Your task to perform on an android device: turn on javascript in the chrome app Image 0: 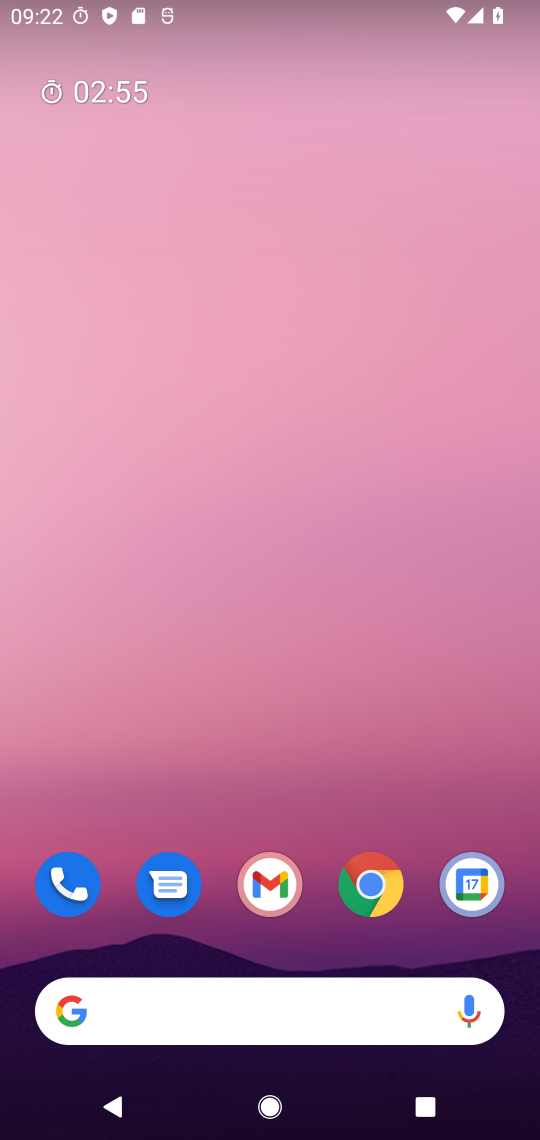
Step 0: click (357, 894)
Your task to perform on an android device: turn on javascript in the chrome app Image 1: 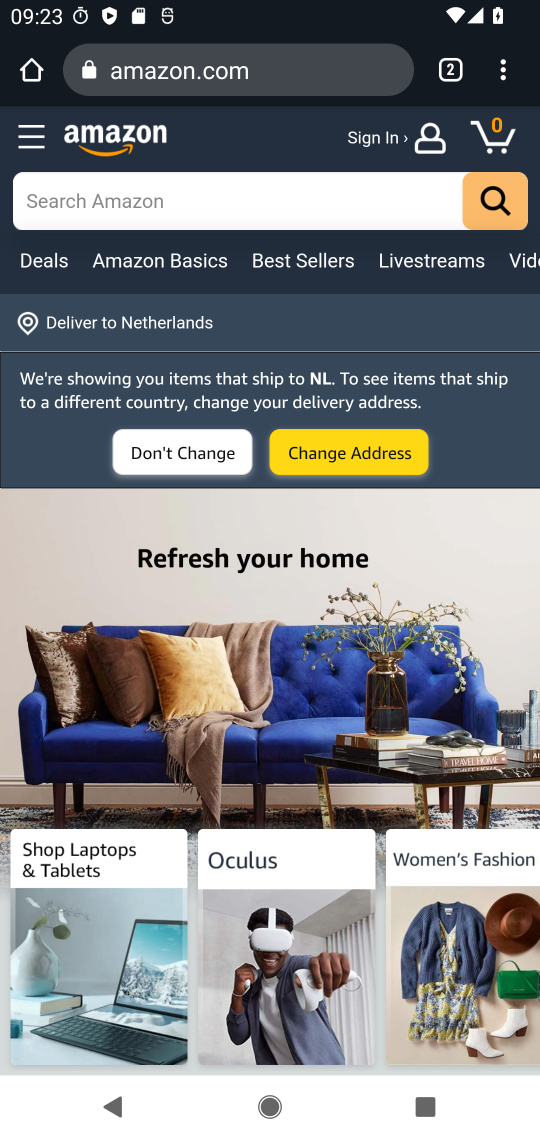
Step 1: click (510, 75)
Your task to perform on an android device: turn on javascript in the chrome app Image 2: 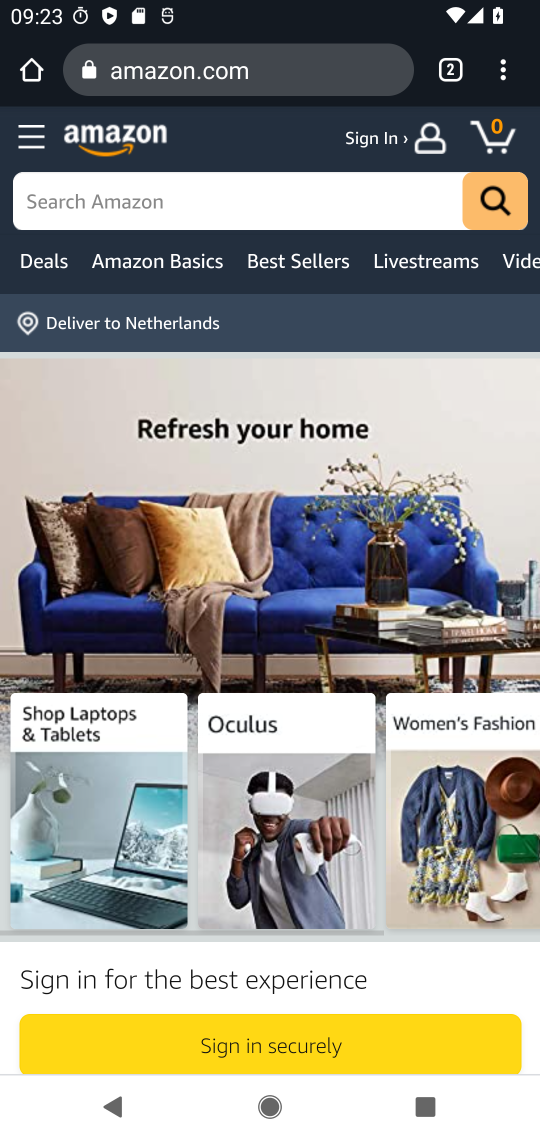
Step 2: click (505, 68)
Your task to perform on an android device: turn on javascript in the chrome app Image 3: 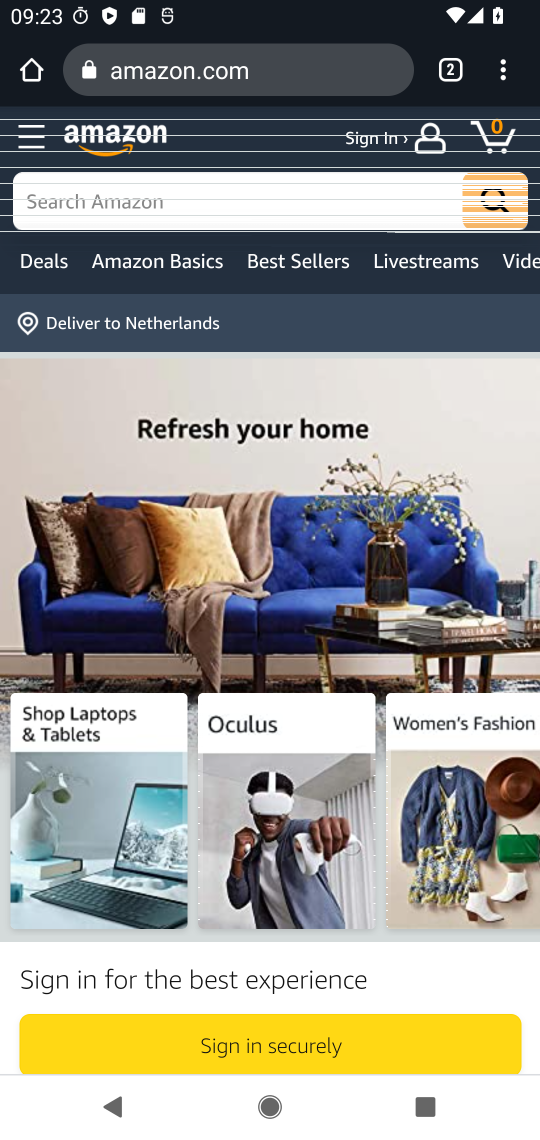
Step 3: drag from (505, 68) to (295, 943)
Your task to perform on an android device: turn on javascript in the chrome app Image 4: 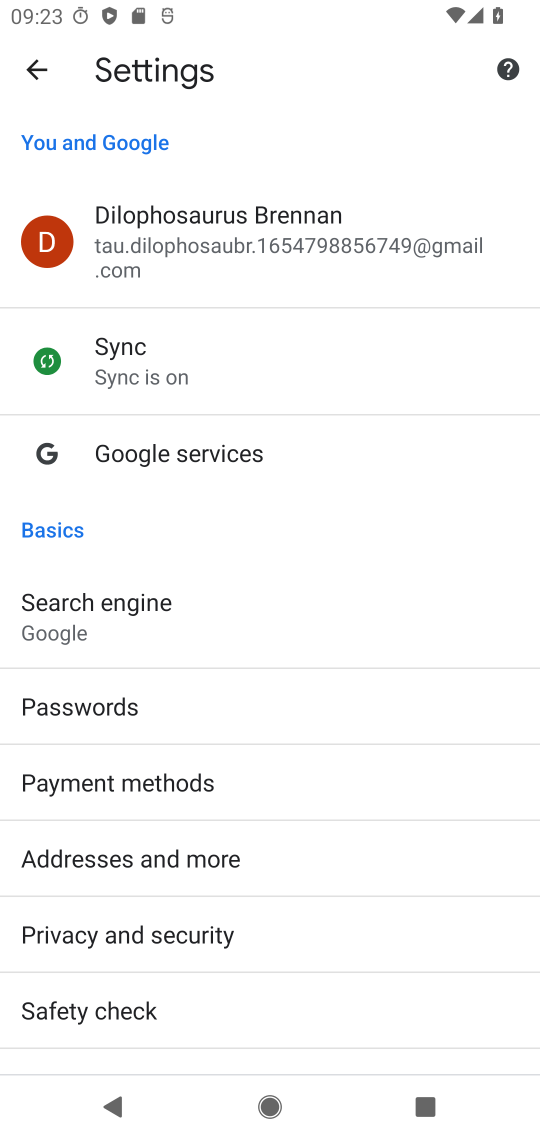
Step 4: drag from (175, 687) to (182, 262)
Your task to perform on an android device: turn on javascript in the chrome app Image 5: 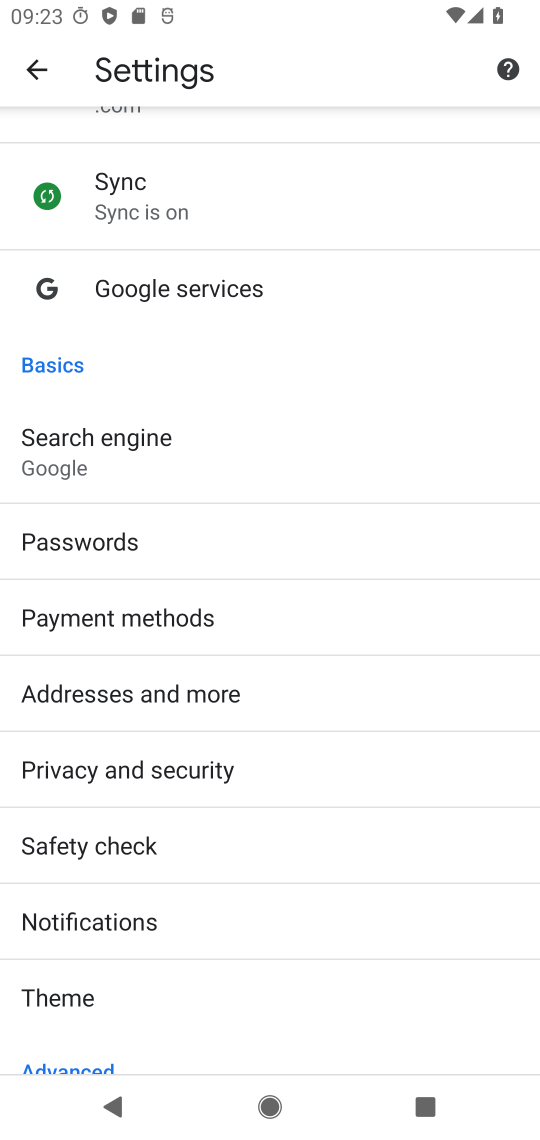
Step 5: drag from (219, 866) to (245, 328)
Your task to perform on an android device: turn on javascript in the chrome app Image 6: 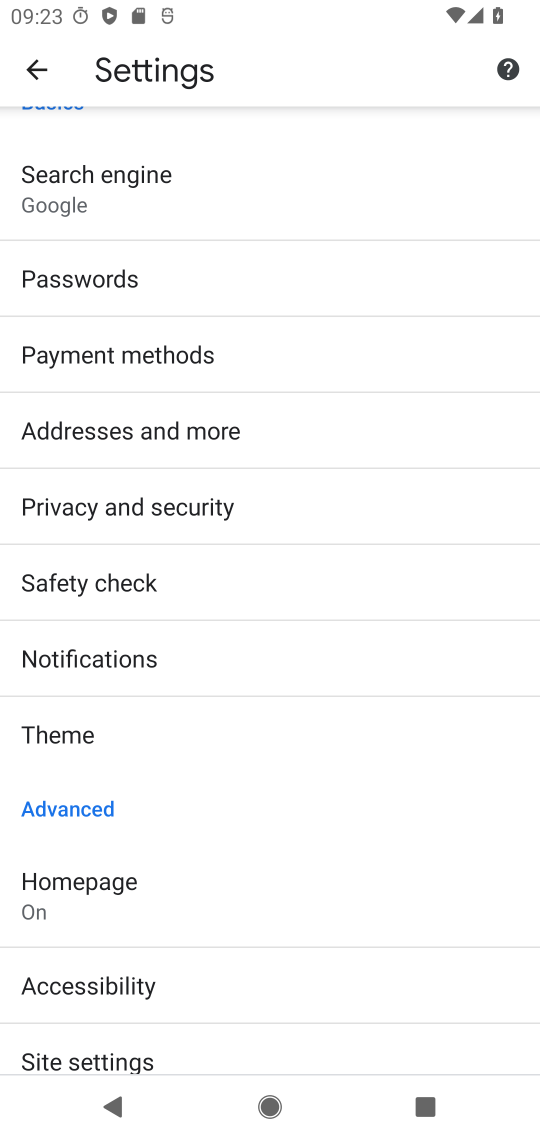
Step 6: drag from (227, 855) to (294, 452)
Your task to perform on an android device: turn on javascript in the chrome app Image 7: 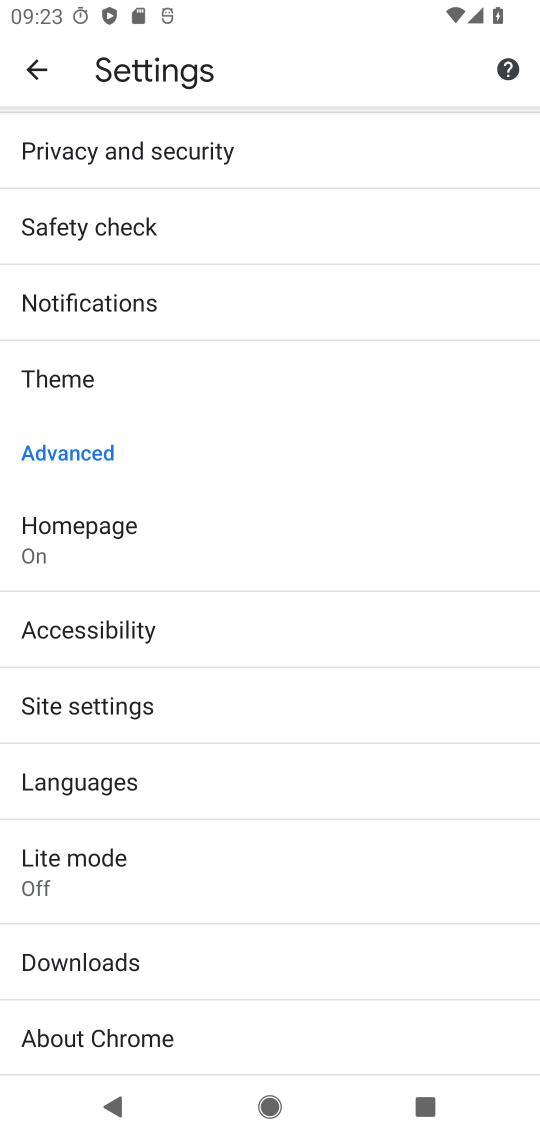
Step 7: drag from (265, 841) to (294, 254)
Your task to perform on an android device: turn on javascript in the chrome app Image 8: 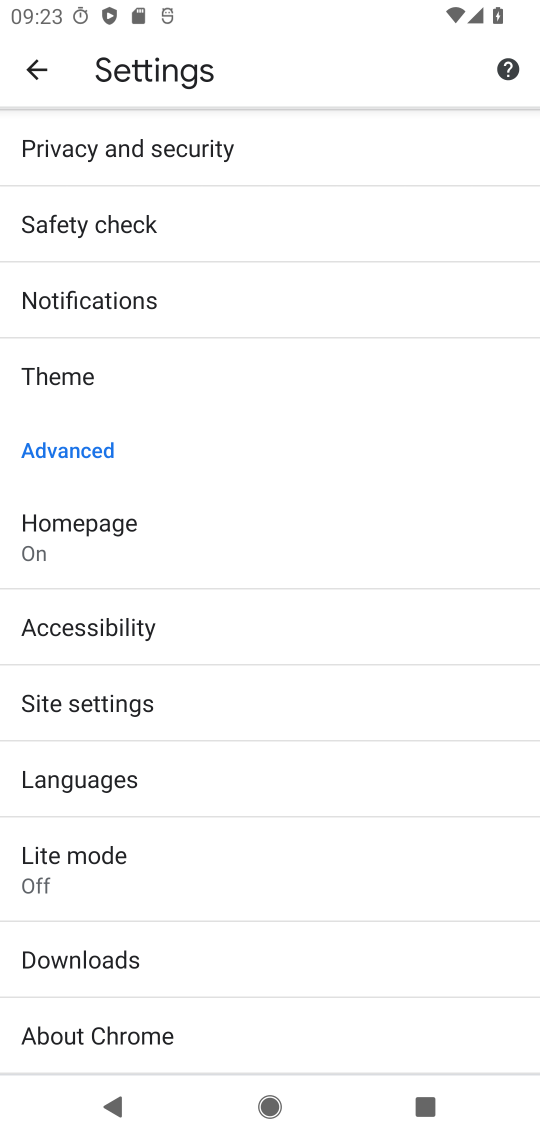
Step 8: click (209, 700)
Your task to perform on an android device: turn on javascript in the chrome app Image 9: 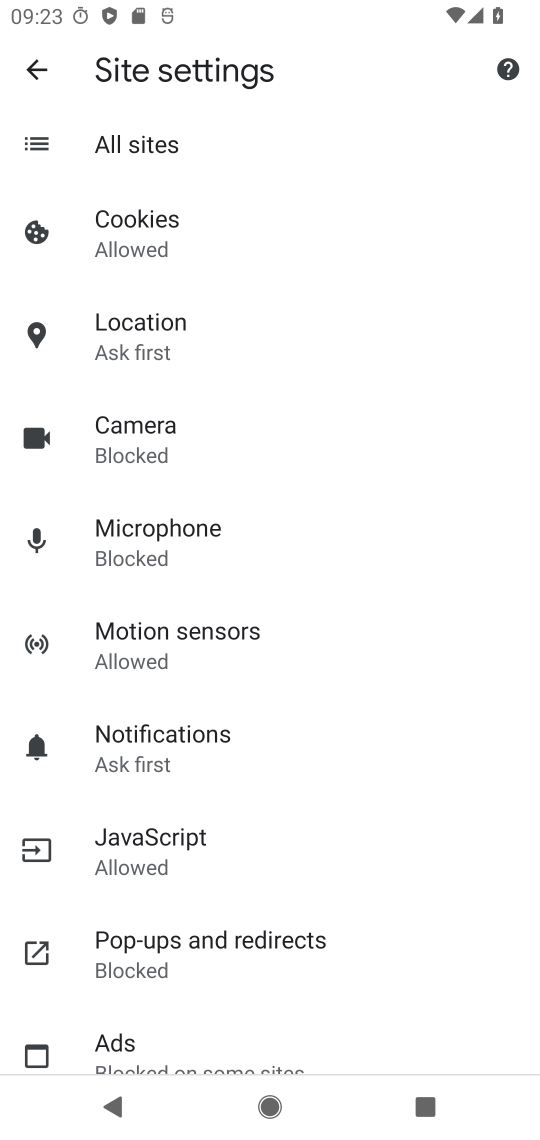
Step 9: click (174, 822)
Your task to perform on an android device: turn on javascript in the chrome app Image 10: 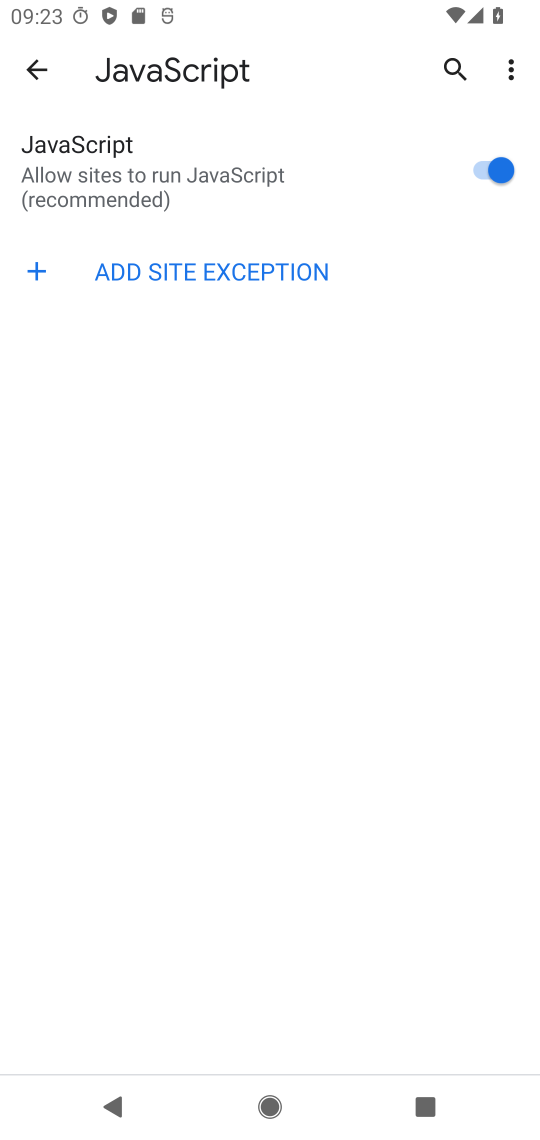
Step 10: task complete